Your task to perform on an android device: find snoozed emails in the gmail app Image 0: 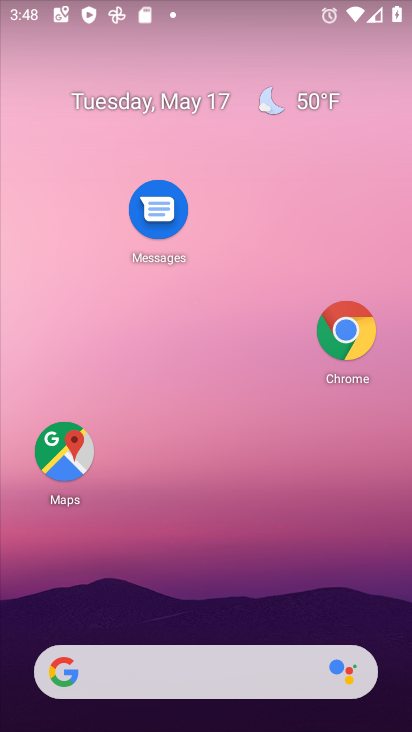
Step 0: drag from (237, 599) to (216, 127)
Your task to perform on an android device: find snoozed emails in the gmail app Image 1: 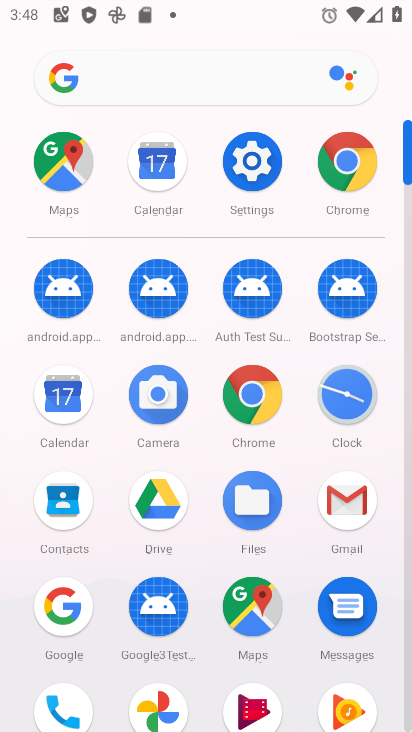
Step 1: click (329, 488)
Your task to perform on an android device: find snoozed emails in the gmail app Image 2: 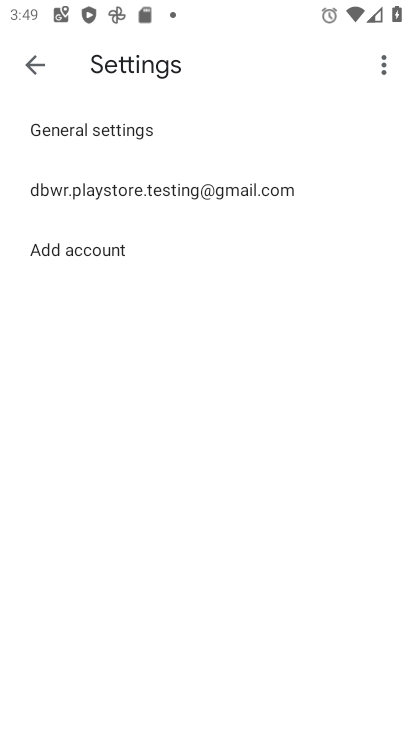
Step 2: click (21, 58)
Your task to perform on an android device: find snoozed emails in the gmail app Image 3: 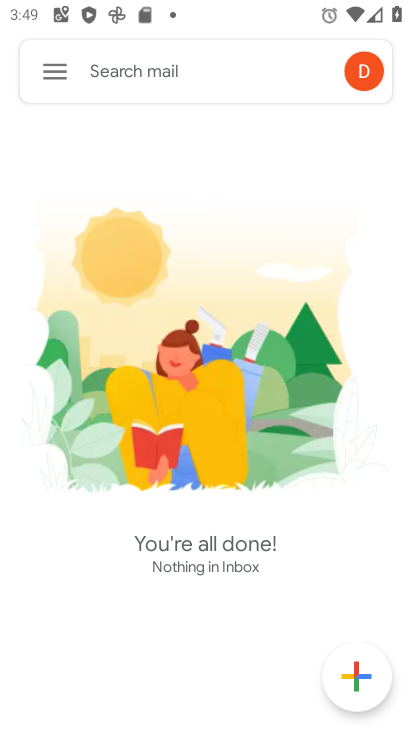
Step 3: click (46, 61)
Your task to perform on an android device: find snoozed emails in the gmail app Image 4: 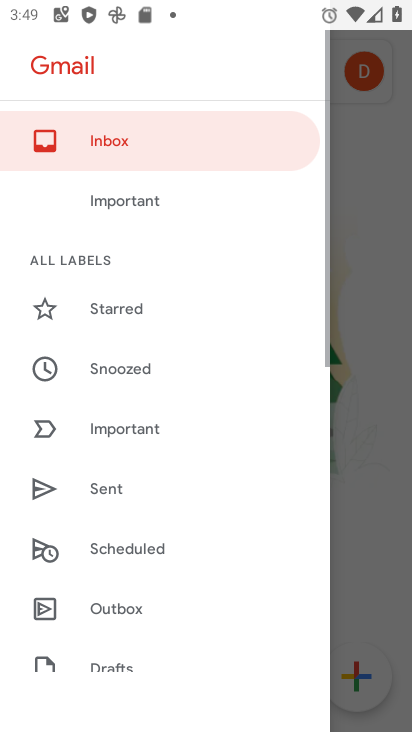
Step 4: drag from (154, 618) to (156, 489)
Your task to perform on an android device: find snoozed emails in the gmail app Image 5: 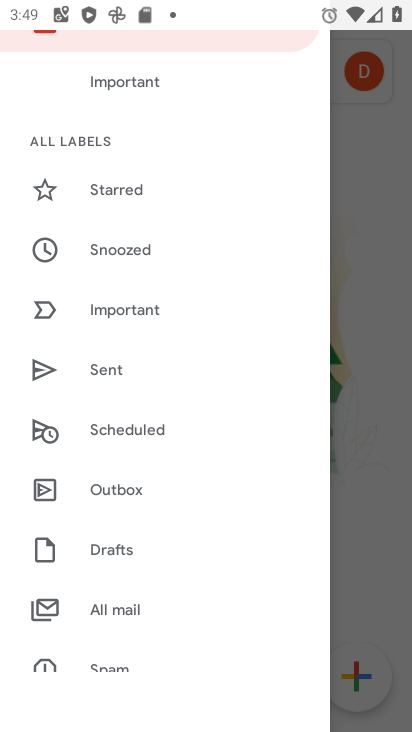
Step 5: click (149, 246)
Your task to perform on an android device: find snoozed emails in the gmail app Image 6: 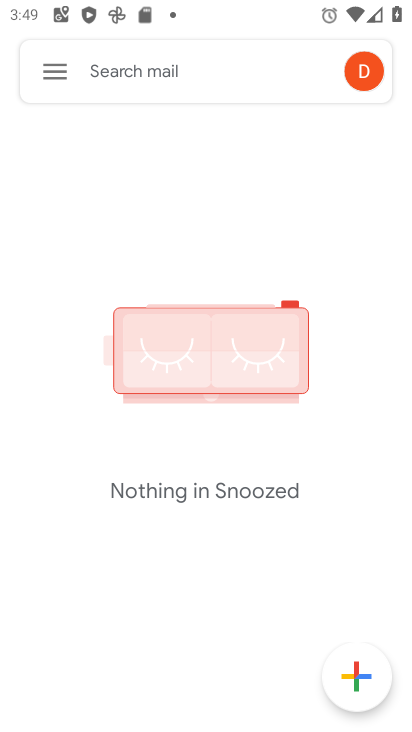
Step 6: task complete